Your task to perform on an android device: Open CNN.com Image 0: 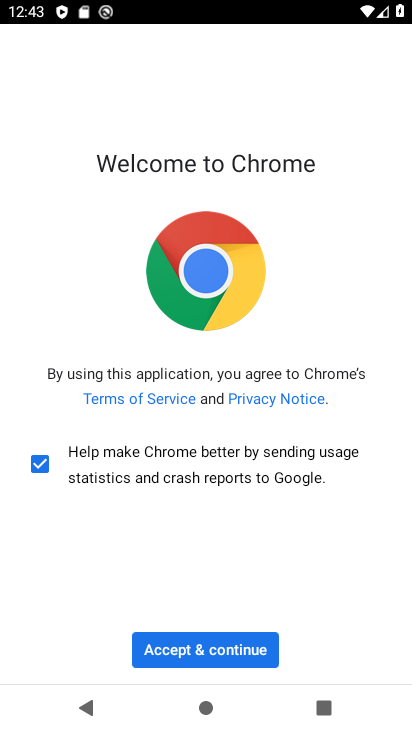
Step 0: click (232, 650)
Your task to perform on an android device: Open CNN.com Image 1: 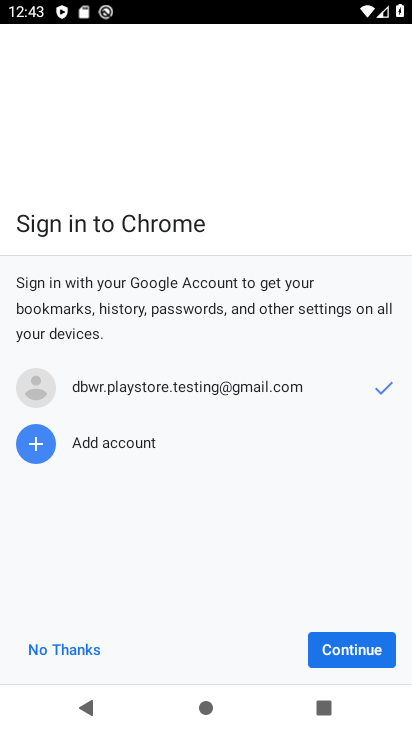
Step 1: click (353, 650)
Your task to perform on an android device: Open CNN.com Image 2: 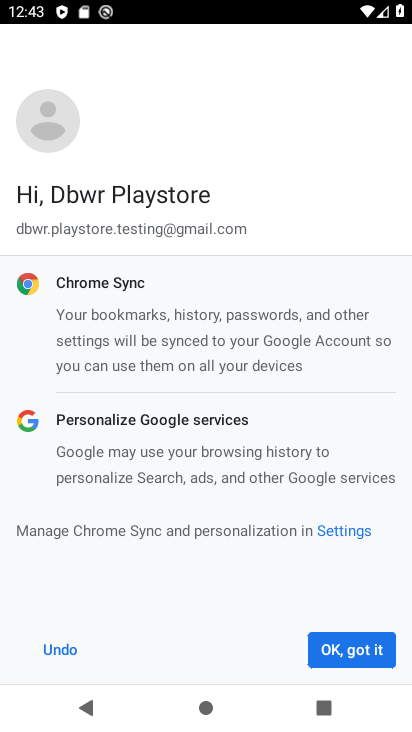
Step 2: click (353, 650)
Your task to perform on an android device: Open CNN.com Image 3: 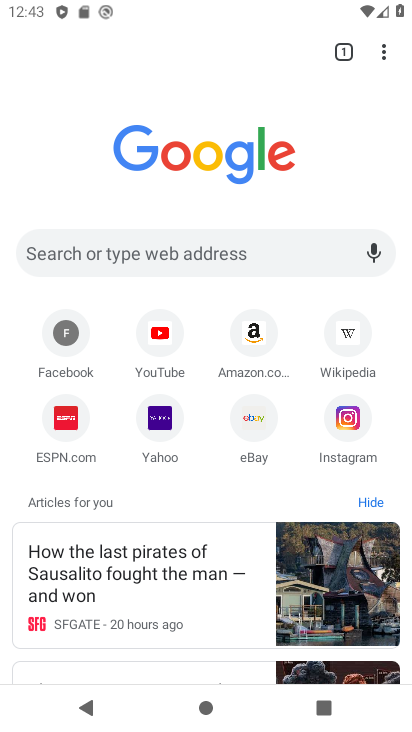
Step 3: click (243, 265)
Your task to perform on an android device: Open CNN.com Image 4: 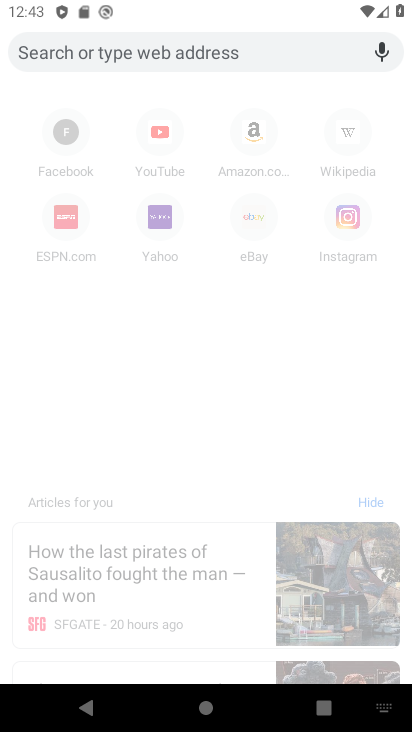
Step 4: click (266, 53)
Your task to perform on an android device: Open CNN.com Image 5: 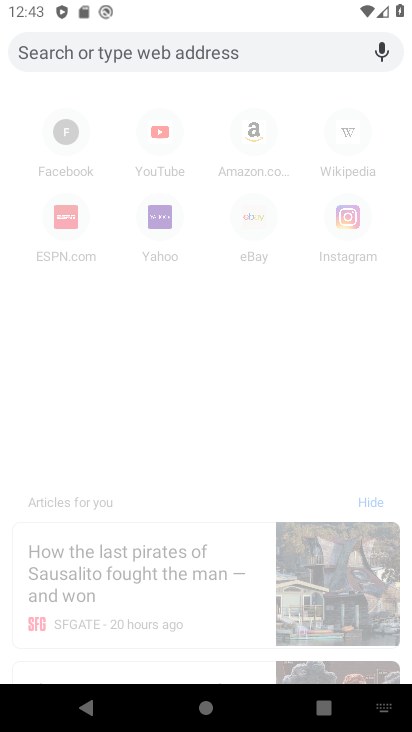
Step 5: type "CNN.com"
Your task to perform on an android device: Open CNN.com Image 6: 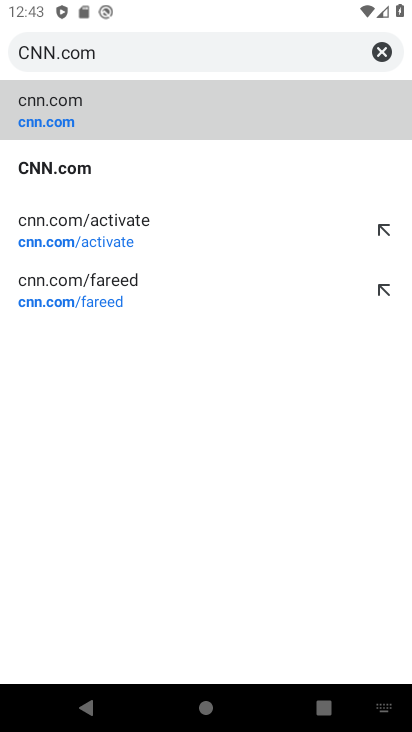
Step 6: click (63, 124)
Your task to perform on an android device: Open CNN.com Image 7: 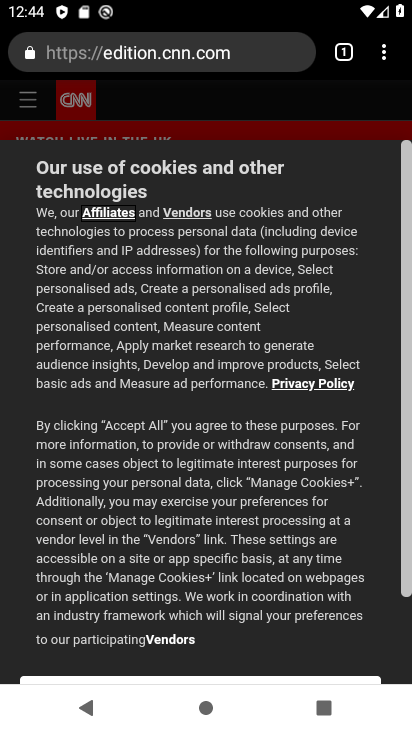
Step 7: task complete